Your task to perform on an android device: turn on showing notifications on the lock screen Image 0: 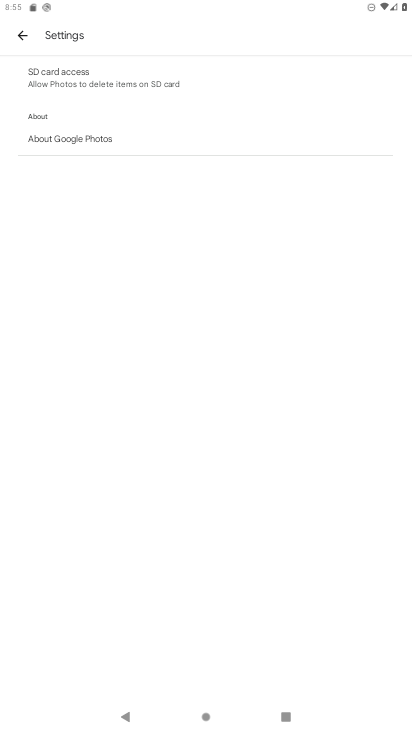
Step 0: press home button
Your task to perform on an android device: turn on showing notifications on the lock screen Image 1: 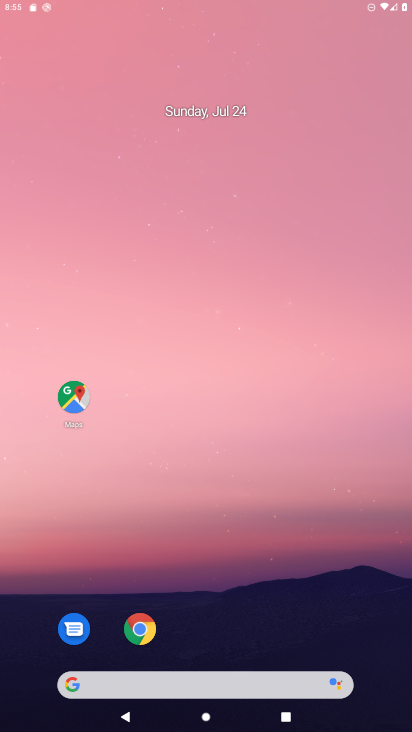
Step 1: drag from (392, 675) to (165, 76)
Your task to perform on an android device: turn on showing notifications on the lock screen Image 2: 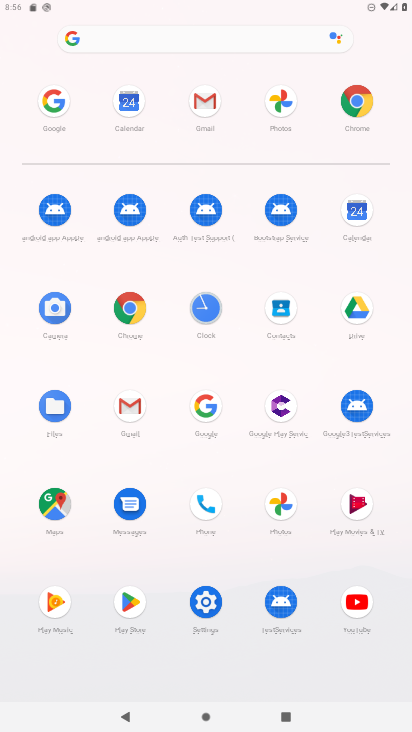
Step 2: click (208, 601)
Your task to perform on an android device: turn on showing notifications on the lock screen Image 3: 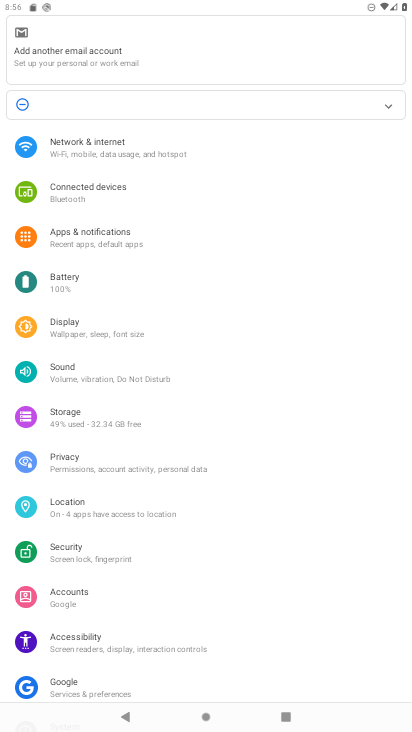
Step 3: click (120, 234)
Your task to perform on an android device: turn on showing notifications on the lock screen Image 4: 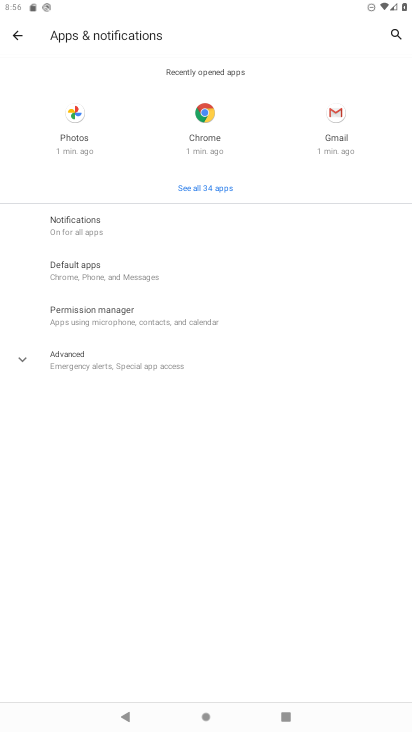
Step 4: click (107, 224)
Your task to perform on an android device: turn on showing notifications on the lock screen Image 5: 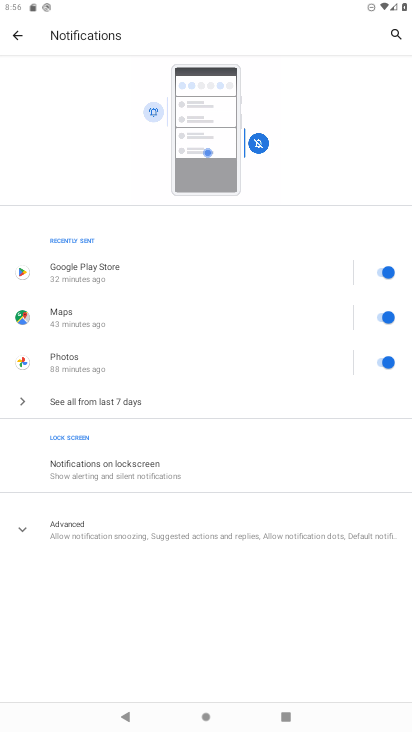
Step 5: click (137, 466)
Your task to perform on an android device: turn on showing notifications on the lock screen Image 6: 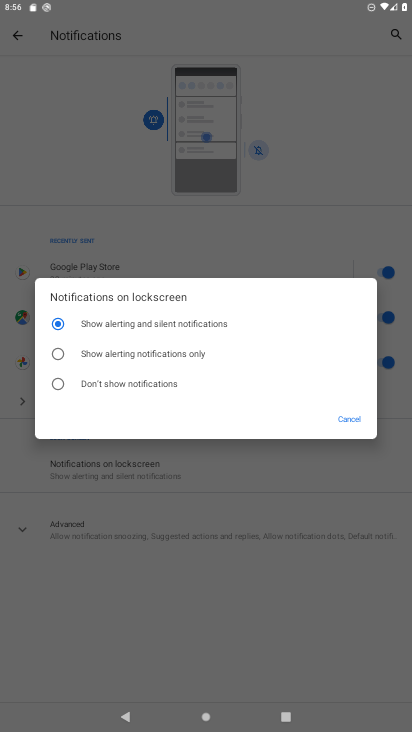
Step 6: task complete